Your task to perform on an android device: Go to sound settings Image 0: 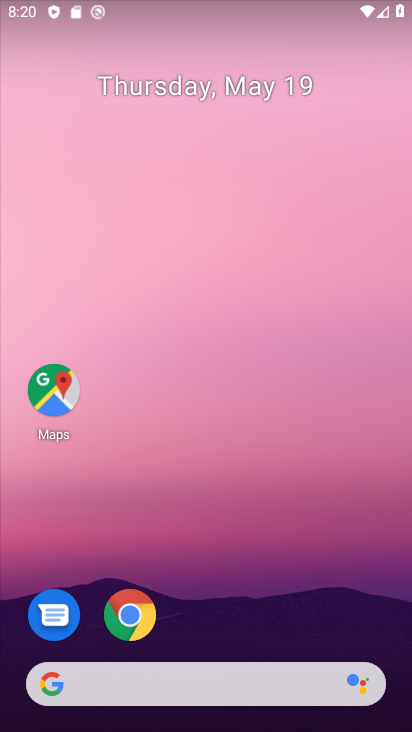
Step 0: drag from (313, 618) to (240, 9)
Your task to perform on an android device: Go to sound settings Image 1: 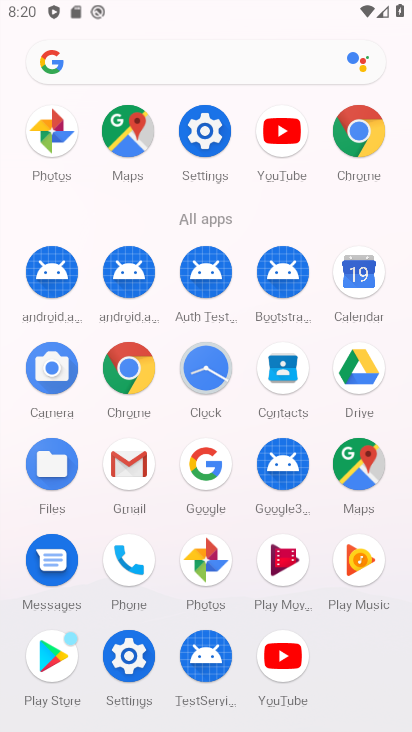
Step 1: click (199, 141)
Your task to perform on an android device: Go to sound settings Image 2: 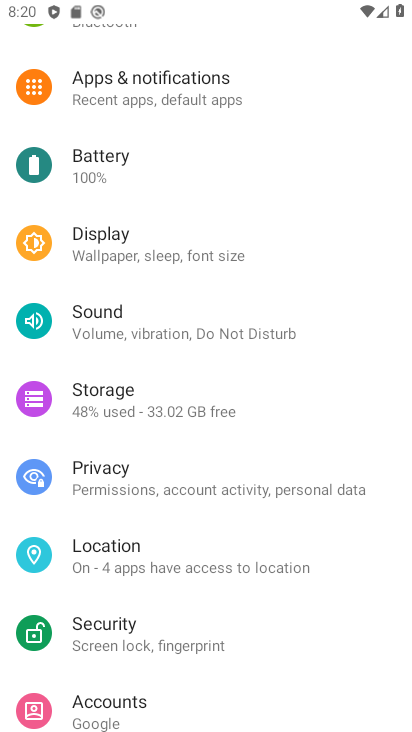
Step 2: click (188, 319)
Your task to perform on an android device: Go to sound settings Image 3: 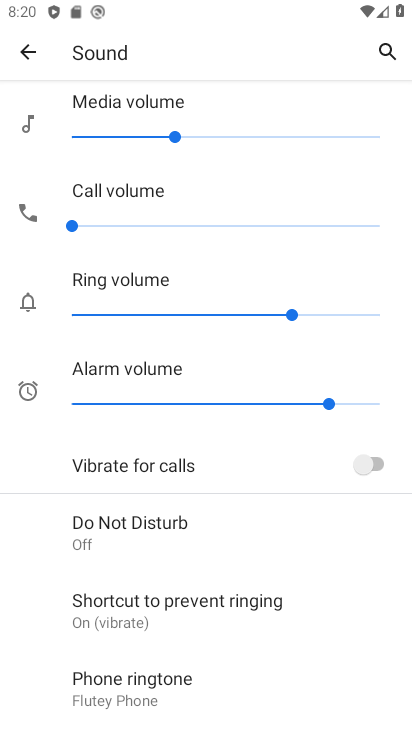
Step 3: task complete